Your task to perform on an android device: Open Google Maps and go to "Timeline" Image 0: 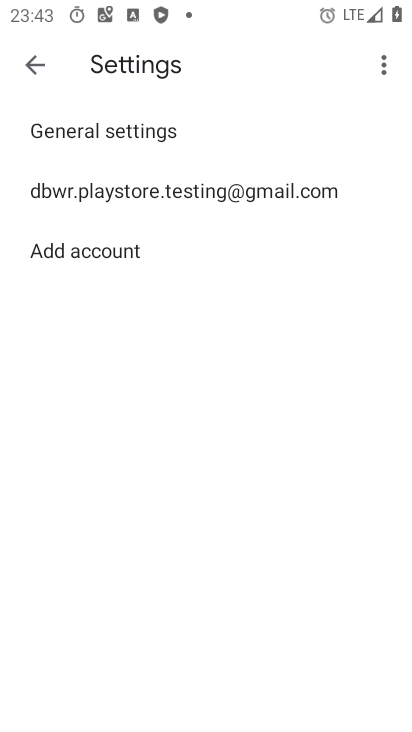
Step 0: press home button
Your task to perform on an android device: Open Google Maps and go to "Timeline" Image 1: 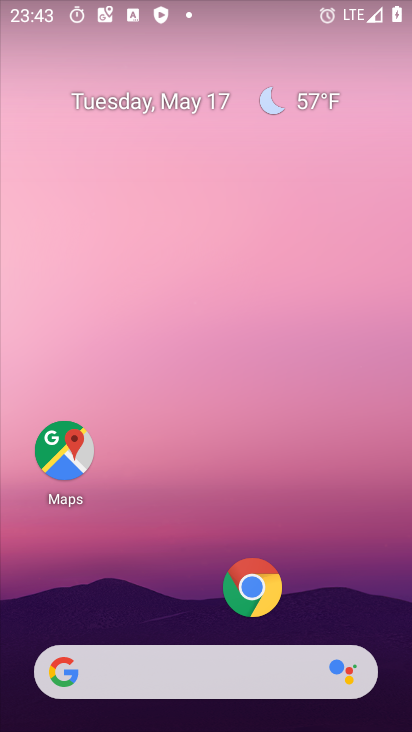
Step 1: click (62, 446)
Your task to perform on an android device: Open Google Maps and go to "Timeline" Image 2: 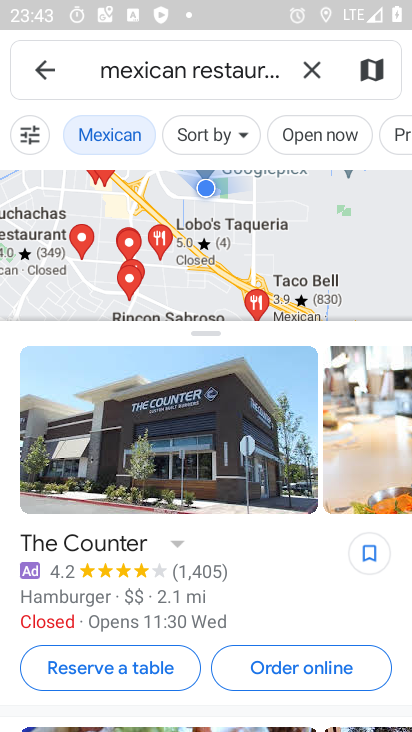
Step 2: click (312, 73)
Your task to perform on an android device: Open Google Maps and go to "Timeline" Image 3: 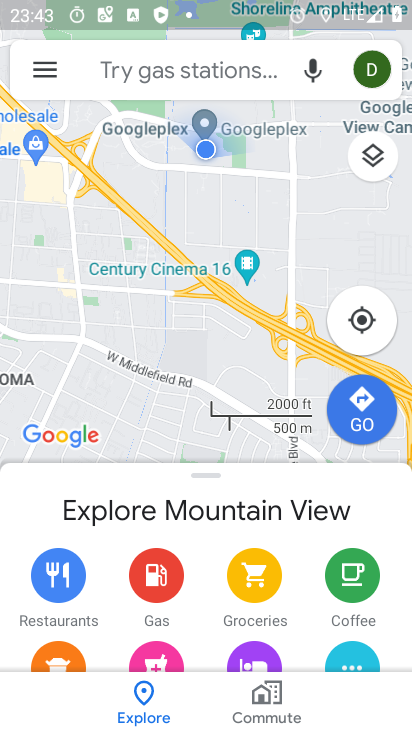
Step 3: click (52, 66)
Your task to perform on an android device: Open Google Maps and go to "Timeline" Image 4: 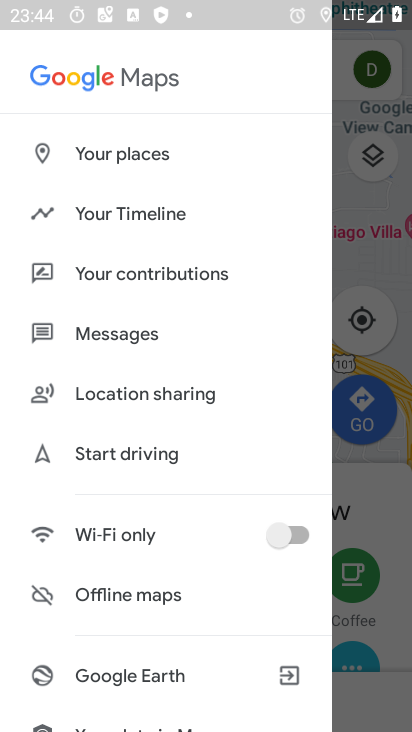
Step 4: click (127, 227)
Your task to perform on an android device: Open Google Maps and go to "Timeline" Image 5: 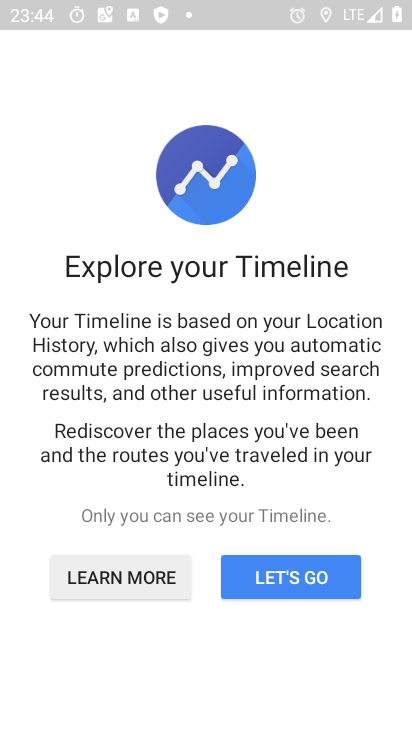
Step 5: drag from (153, 639) to (295, 227)
Your task to perform on an android device: Open Google Maps and go to "Timeline" Image 6: 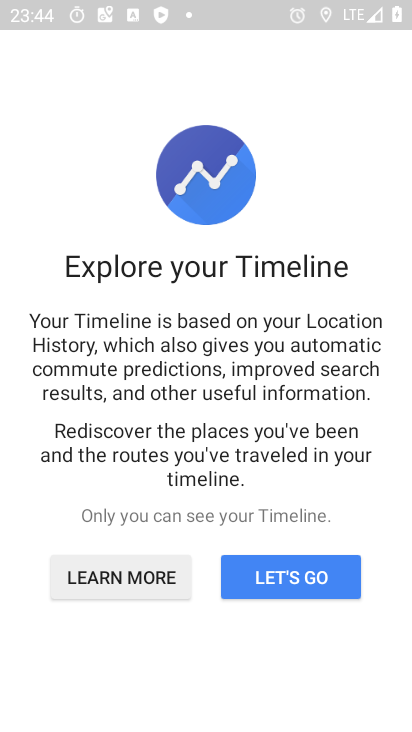
Step 6: click (245, 584)
Your task to perform on an android device: Open Google Maps and go to "Timeline" Image 7: 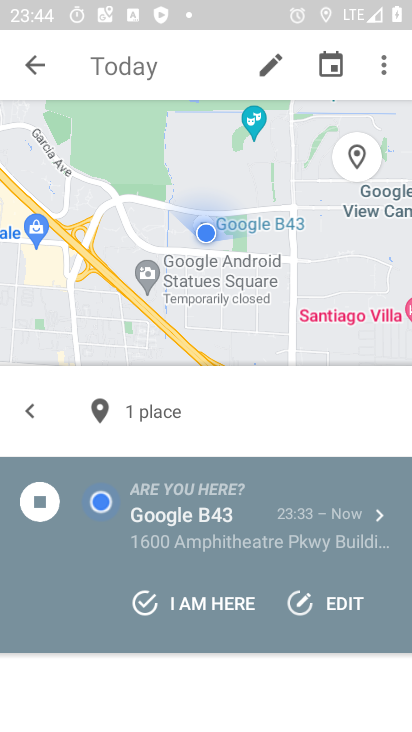
Step 7: task complete